Your task to perform on an android device: see sites visited before in the chrome app Image 0: 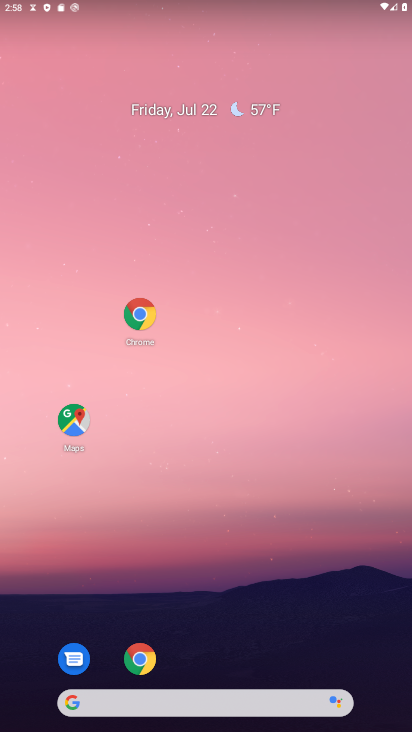
Step 0: drag from (149, 257) to (135, 157)
Your task to perform on an android device: see sites visited before in the chrome app Image 1: 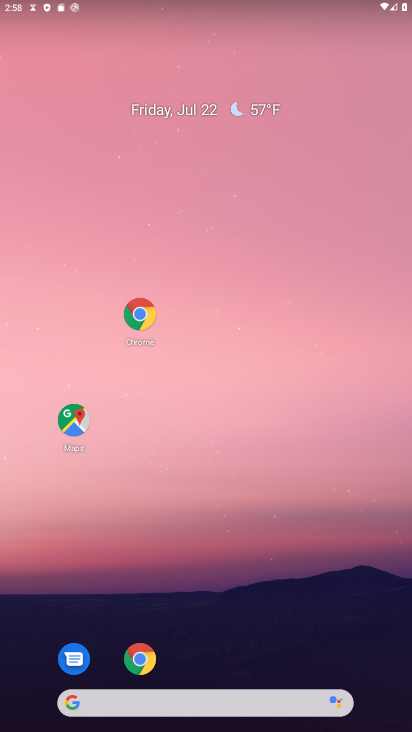
Step 1: click (171, 62)
Your task to perform on an android device: see sites visited before in the chrome app Image 2: 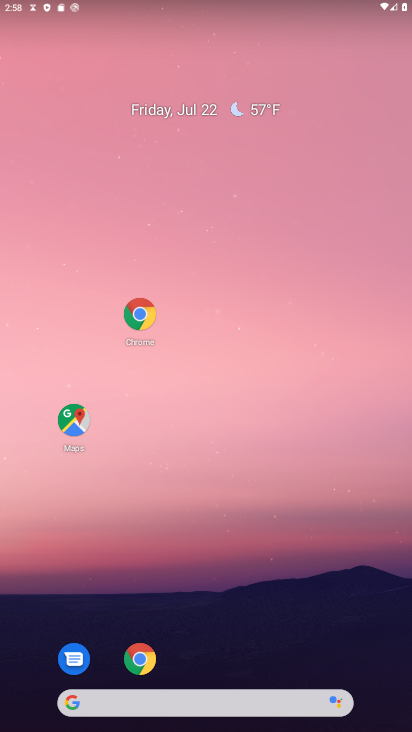
Step 2: drag from (234, 530) to (238, 63)
Your task to perform on an android device: see sites visited before in the chrome app Image 3: 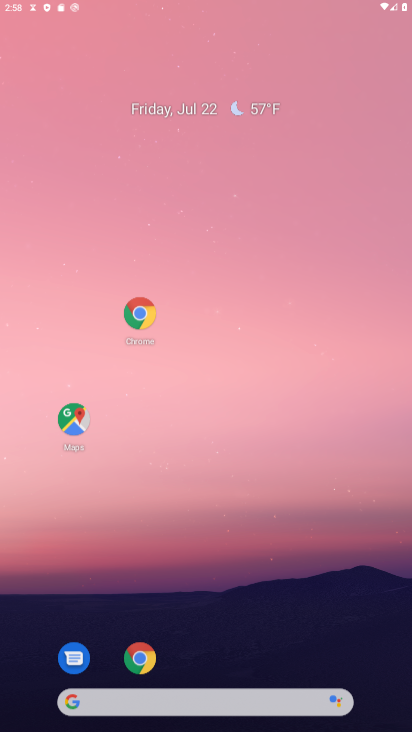
Step 3: drag from (261, 457) to (300, 63)
Your task to perform on an android device: see sites visited before in the chrome app Image 4: 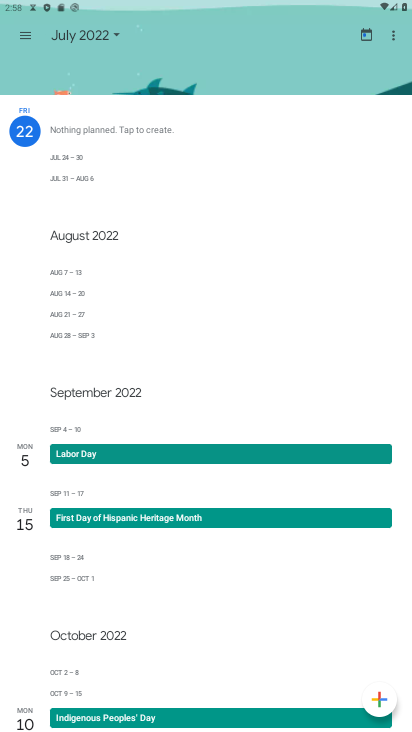
Step 4: drag from (264, 474) to (234, 8)
Your task to perform on an android device: see sites visited before in the chrome app Image 5: 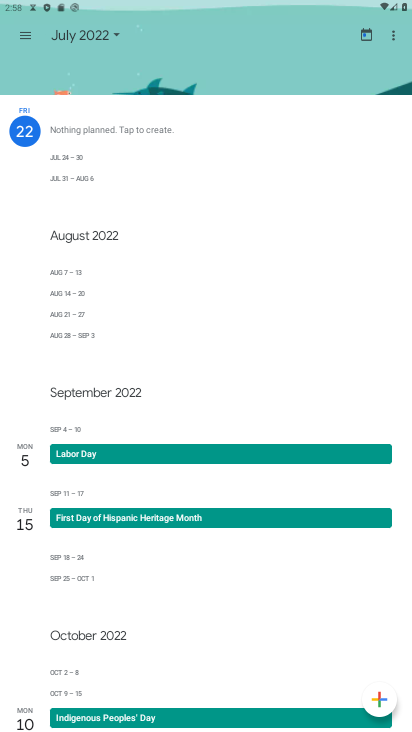
Step 5: drag from (165, 151) to (165, 39)
Your task to perform on an android device: see sites visited before in the chrome app Image 6: 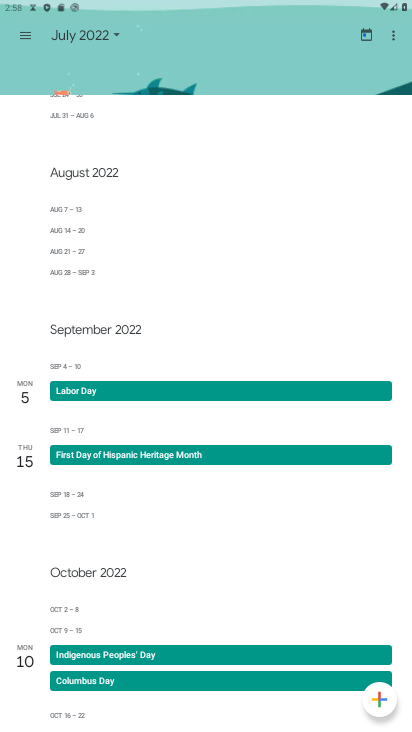
Step 6: press back button
Your task to perform on an android device: see sites visited before in the chrome app Image 7: 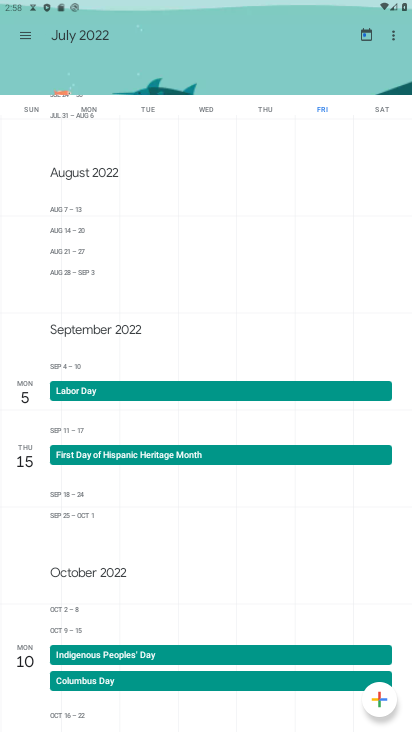
Step 7: press back button
Your task to perform on an android device: see sites visited before in the chrome app Image 8: 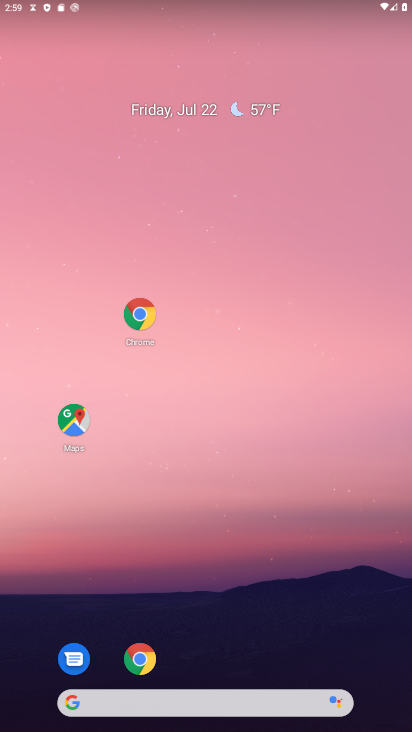
Step 8: drag from (223, 278) to (222, 232)
Your task to perform on an android device: see sites visited before in the chrome app Image 9: 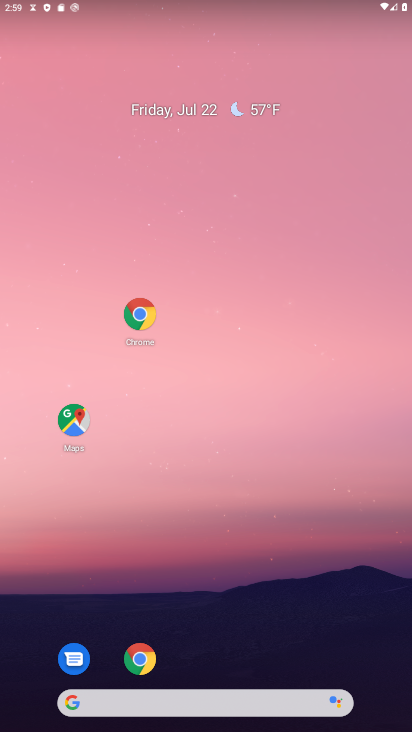
Step 9: drag from (164, 454) to (168, 69)
Your task to perform on an android device: see sites visited before in the chrome app Image 10: 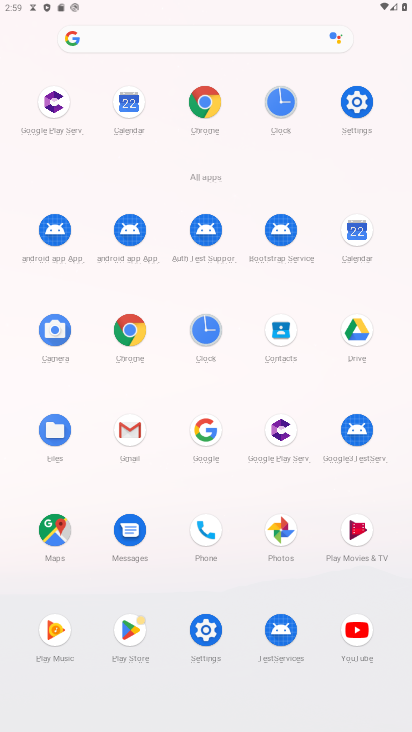
Step 10: click (202, 111)
Your task to perform on an android device: see sites visited before in the chrome app Image 11: 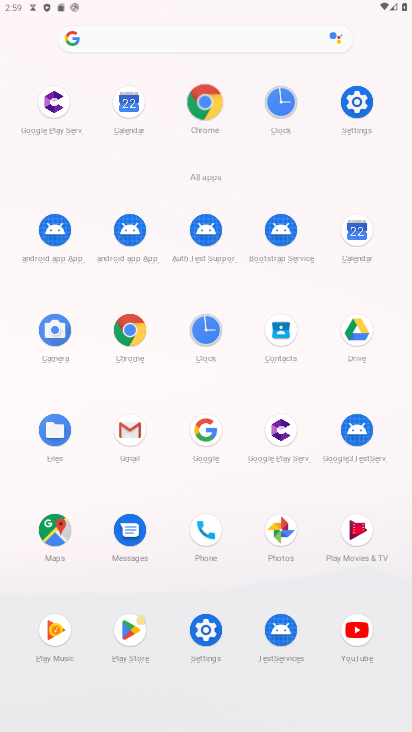
Step 11: click (201, 110)
Your task to perform on an android device: see sites visited before in the chrome app Image 12: 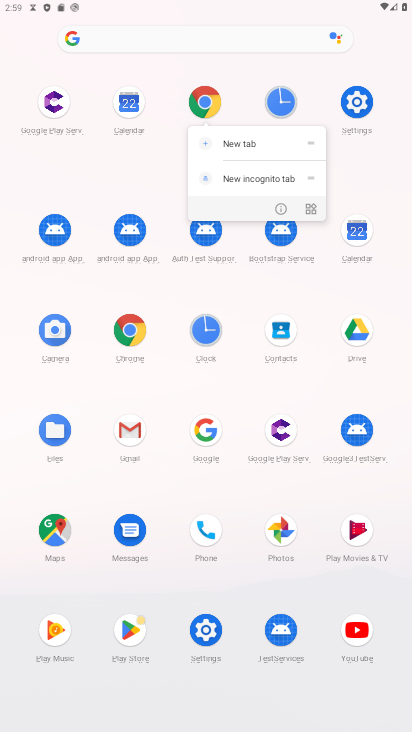
Step 12: click (200, 109)
Your task to perform on an android device: see sites visited before in the chrome app Image 13: 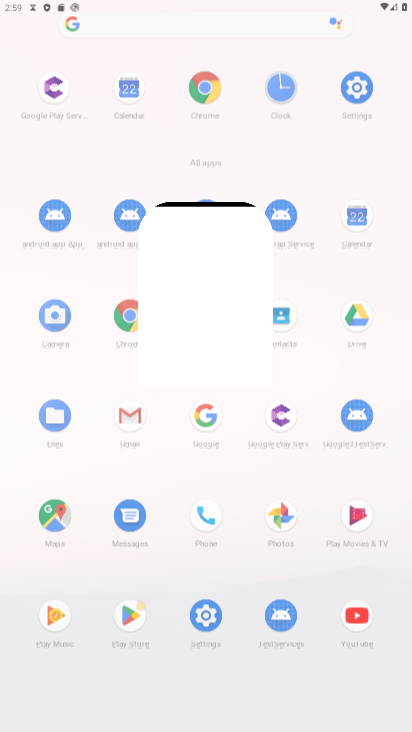
Step 13: click (201, 107)
Your task to perform on an android device: see sites visited before in the chrome app Image 14: 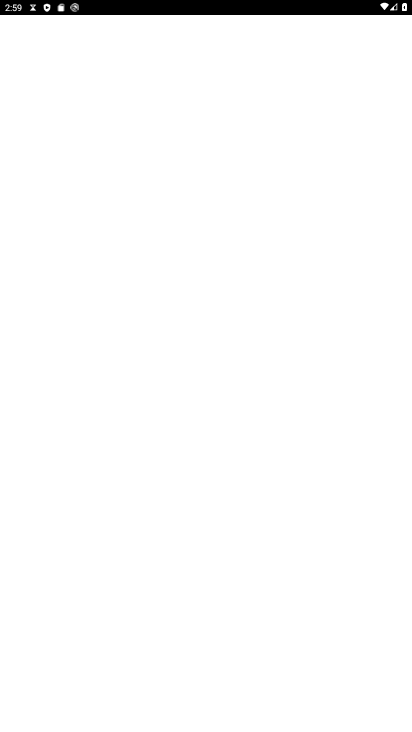
Step 14: click (201, 103)
Your task to perform on an android device: see sites visited before in the chrome app Image 15: 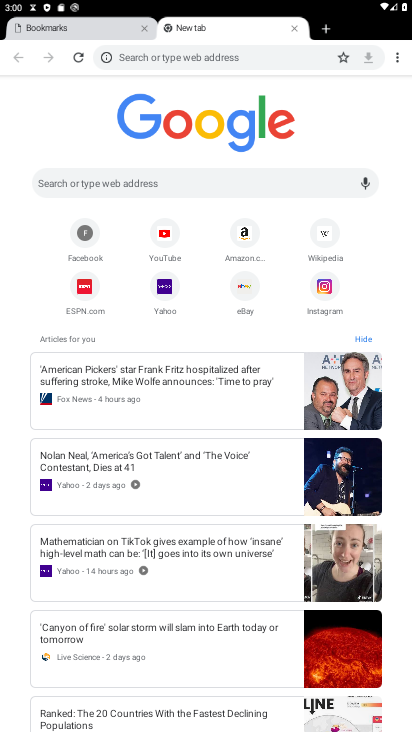
Step 15: click (399, 56)
Your task to perform on an android device: see sites visited before in the chrome app Image 16: 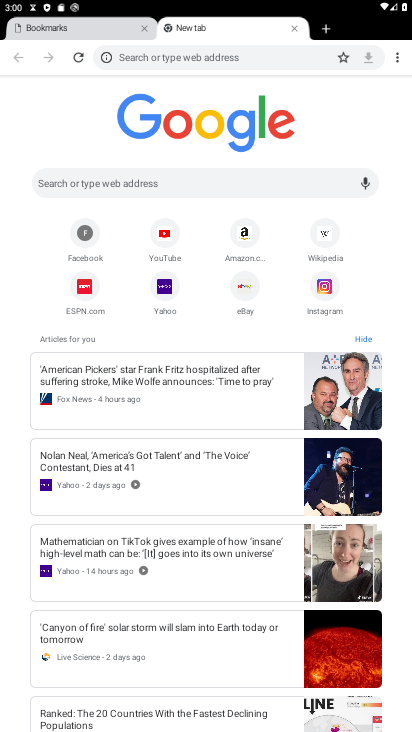
Step 16: click (402, 57)
Your task to perform on an android device: see sites visited before in the chrome app Image 17: 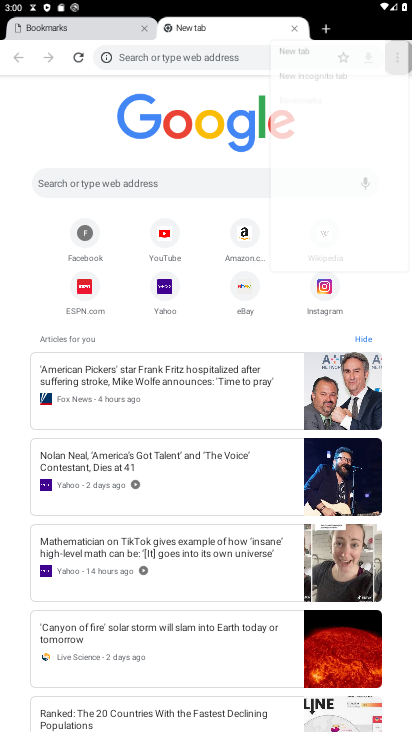
Step 17: click (402, 57)
Your task to perform on an android device: see sites visited before in the chrome app Image 18: 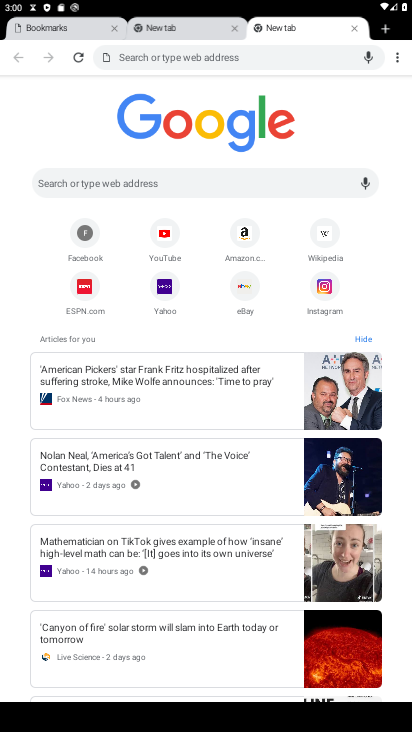
Step 18: drag from (399, 54) to (288, 141)
Your task to perform on an android device: see sites visited before in the chrome app Image 19: 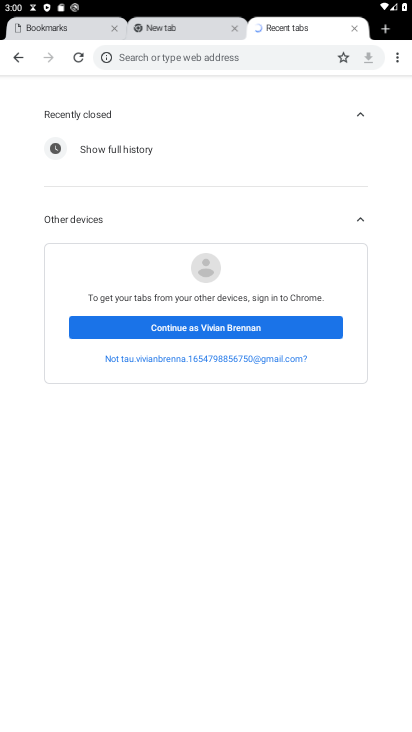
Step 19: click (269, 140)
Your task to perform on an android device: see sites visited before in the chrome app Image 20: 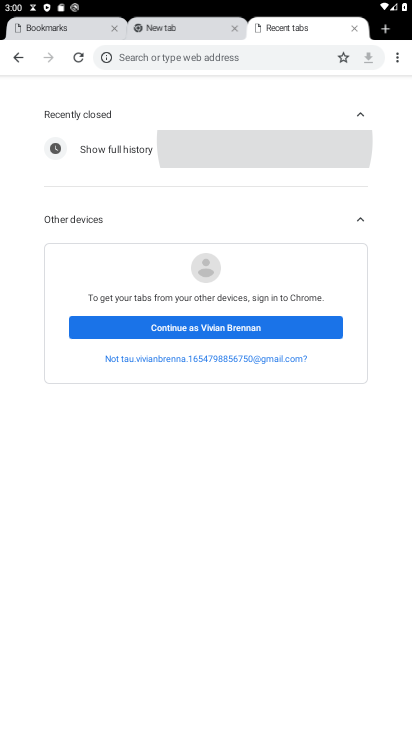
Step 20: click (269, 140)
Your task to perform on an android device: see sites visited before in the chrome app Image 21: 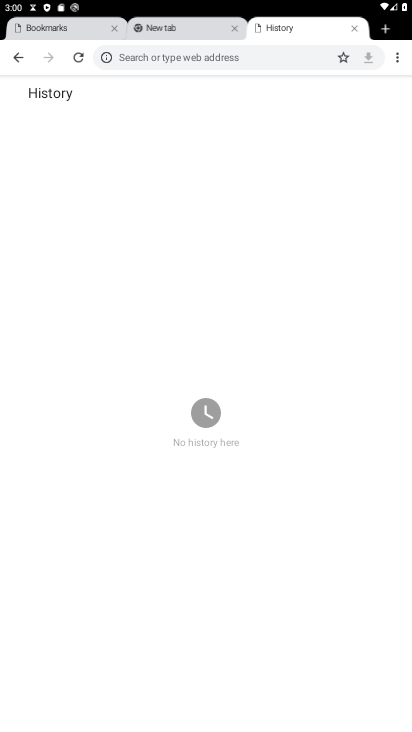
Step 21: task complete